Your task to perform on an android device: See recent photos Image 0: 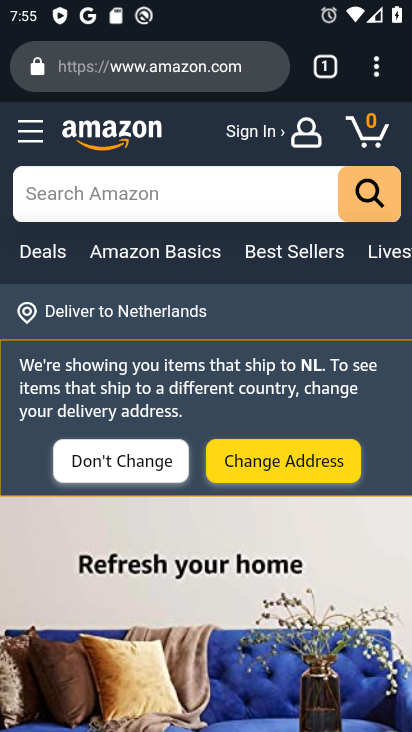
Step 0: press home button
Your task to perform on an android device: See recent photos Image 1: 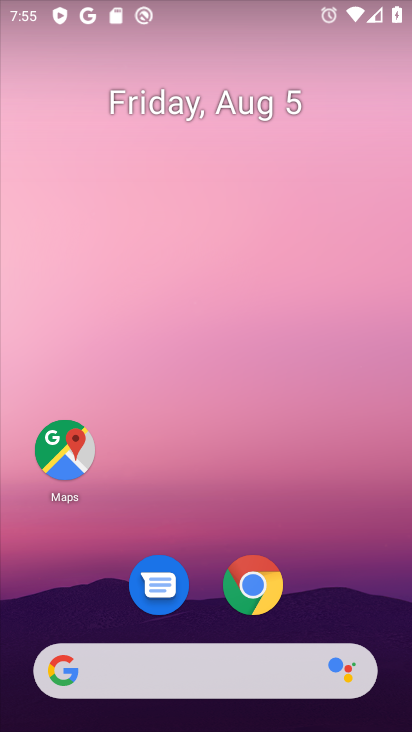
Step 1: drag from (339, 259) to (350, 39)
Your task to perform on an android device: See recent photos Image 2: 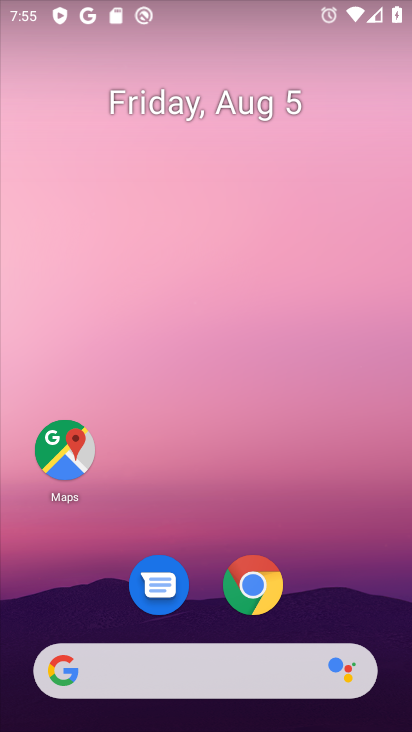
Step 2: drag from (230, 523) to (220, 2)
Your task to perform on an android device: See recent photos Image 3: 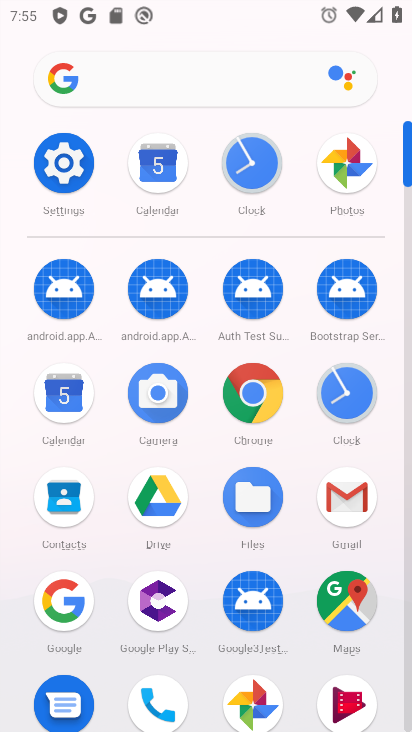
Step 3: click (350, 160)
Your task to perform on an android device: See recent photos Image 4: 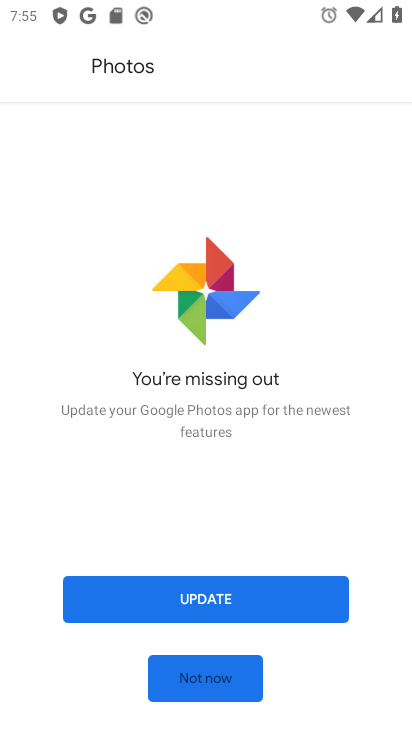
Step 4: click (237, 679)
Your task to perform on an android device: See recent photos Image 5: 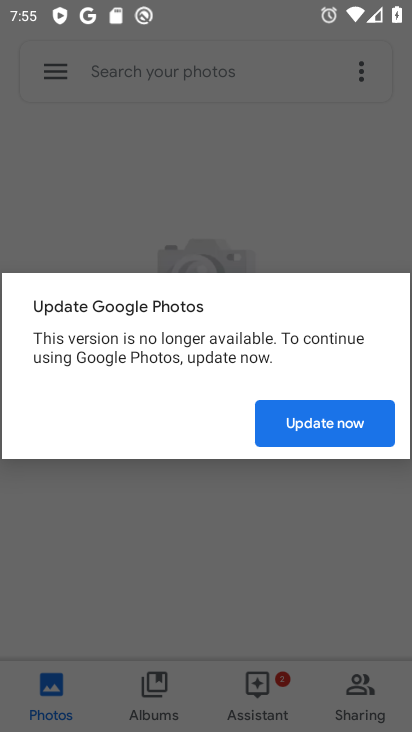
Step 5: click (365, 421)
Your task to perform on an android device: See recent photos Image 6: 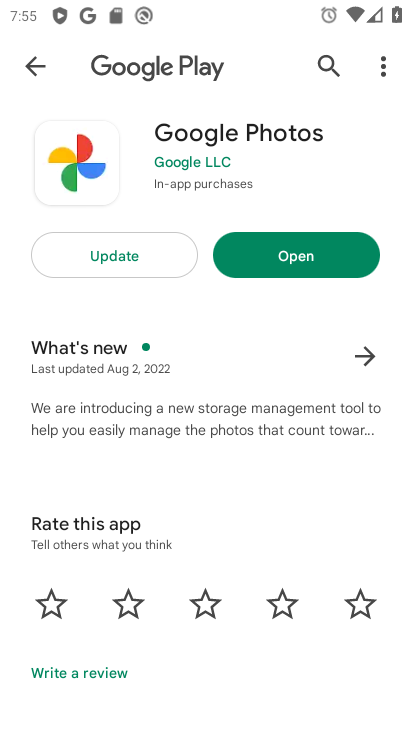
Step 6: click (314, 262)
Your task to perform on an android device: See recent photos Image 7: 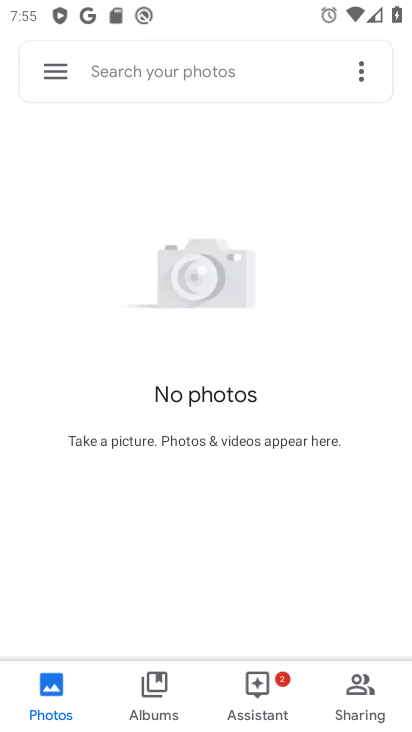
Step 7: task complete